Your task to perform on an android device: Go to battery settings Image 0: 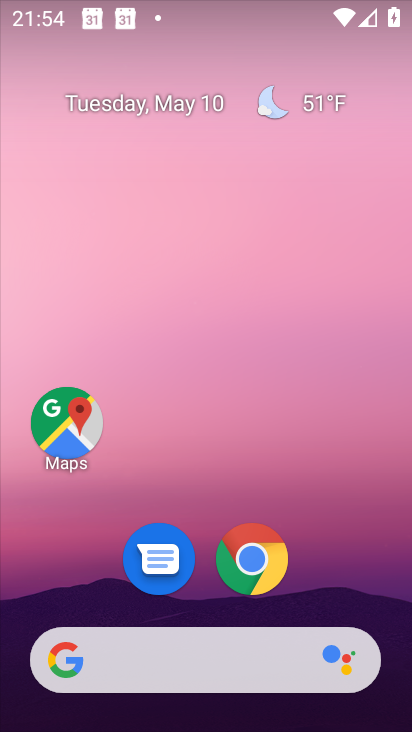
Step 0: drag from (310, 594) to (304, 8)
Your task to perform on an android device: Go to battery settings Image 1: 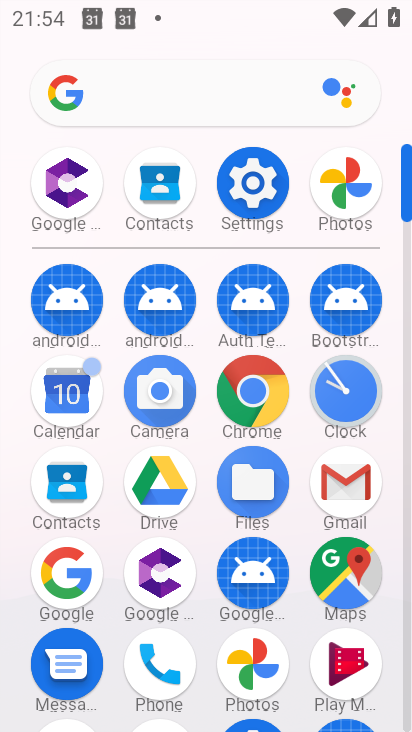
Step 1: click (254, 178)
Your task to perform on an android device: Go to battery settings Image 2: 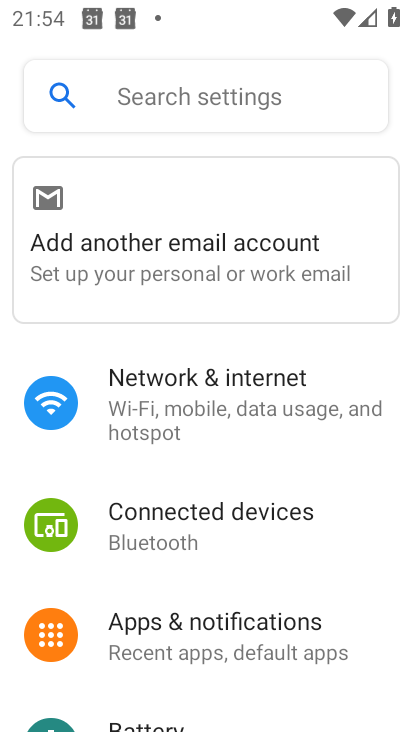
Step 2: drag from (181, 542) to (187, 473)
Your task to perform on an android device: Go to battery settings Image 3: 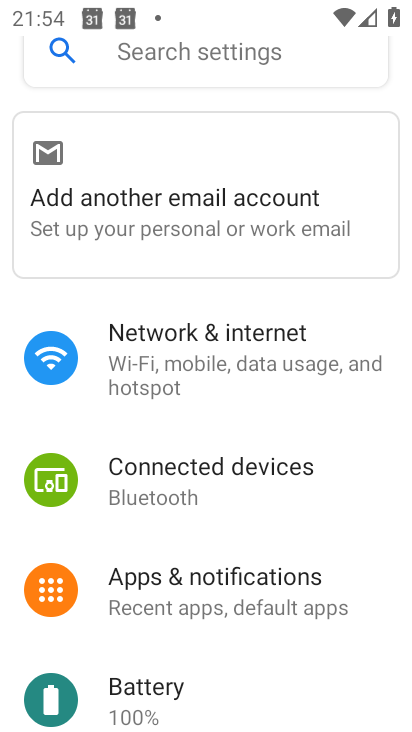
Step 3: drag from (185, 616) to (223, 481)
Your task to perform on an android device: Go to battery settings Image 4: 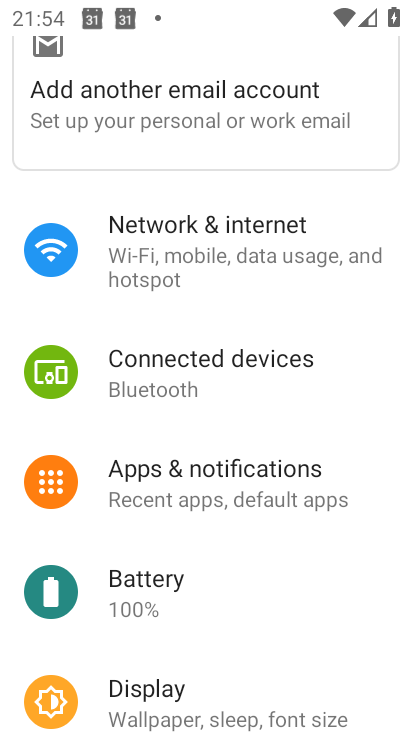
Step 4: click (166, 581)
Your task to perform on an android device: Go to battery settings Image 5: 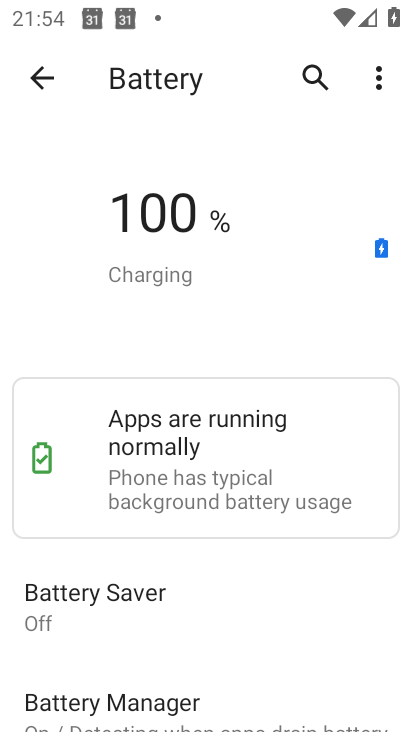
Step 5: task complete